Your task to perform on an android device: Search for sushi restaurants on Maps Image 0: 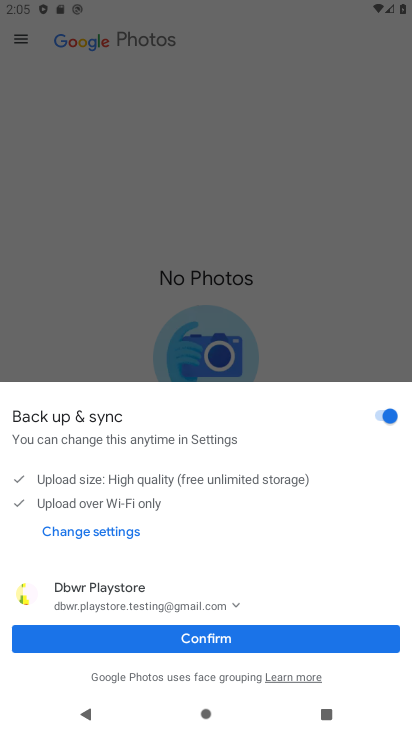
Step 0: click (208, 640)
Your task to perform on an android device: Search for sushi restaurants on Maps Image 1: 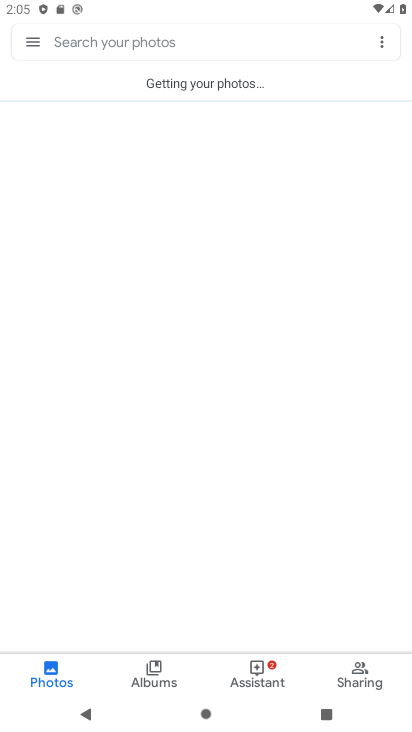
Step 1: press home button
Your task to perform on an android device: Search for sushi restaurants on Maps Image 2: 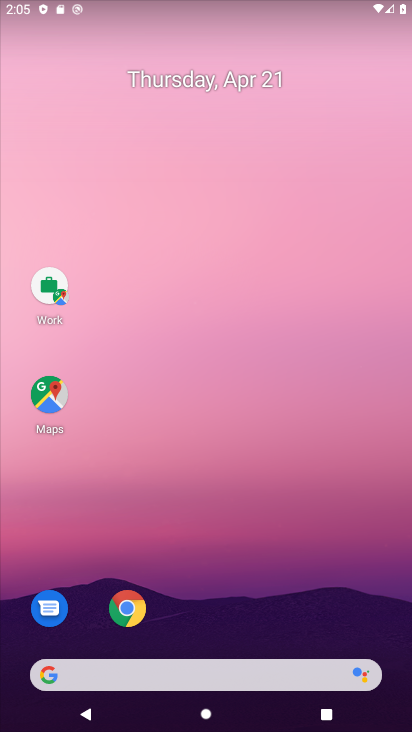
Step 2: click (51, 405)
Your task to perform on an android device: Search for sushi restaurants on Maps Image 3: 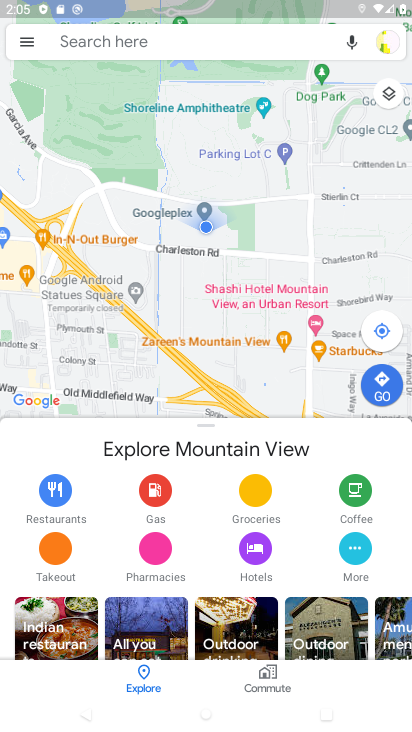
Step 3: click (193, 48)
Your task to perform on an android device: Search for sushi restaurants on Maps Image 4: 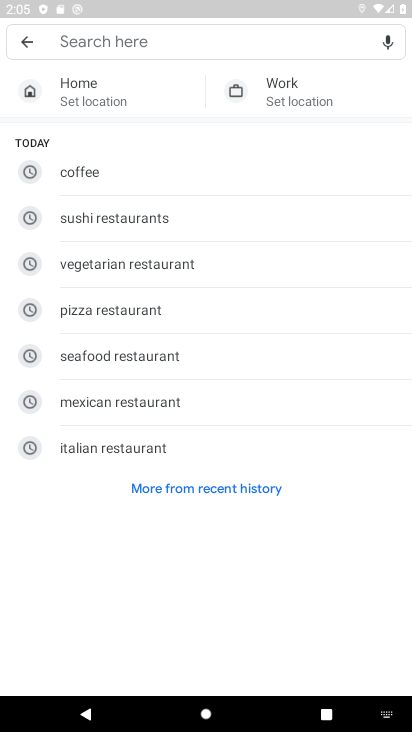
Step 4: click (117, 214)
Your task to perform on an android device: Search for sushi restaurants on Maps Image 5: 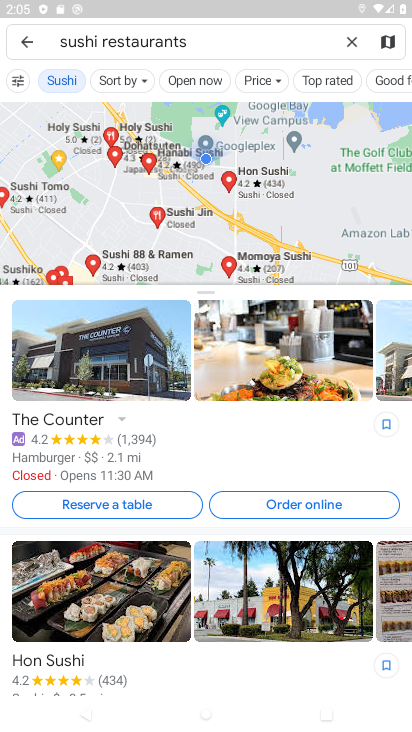
Step 5: task complete